Your task to perform on an android device: Search for pizza restaurants on Maps Image 0: 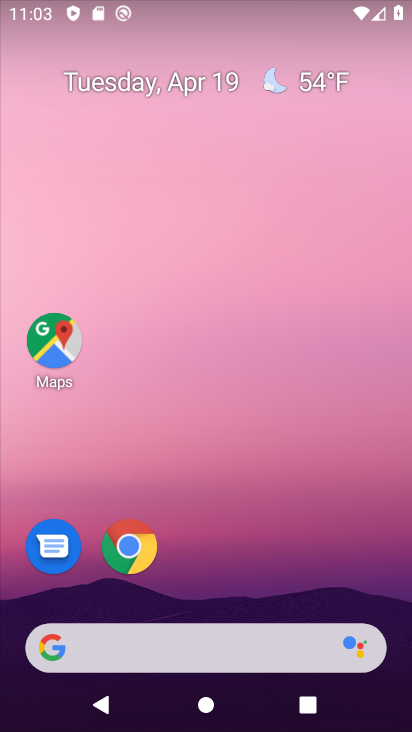
Step 0: click (53, 355)
Your task to perform on an android device: Search for pizza restaurants on Maps Image 1: 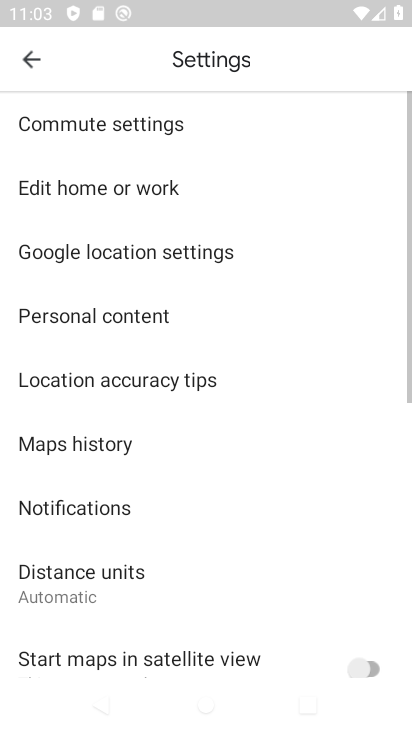
Step 1: press back button
Your task to perform on an android device: Search for pizza restaurants on Maps Image 2: 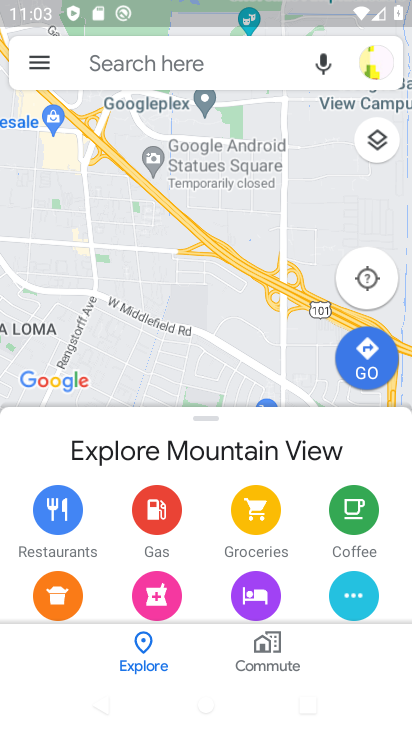
Step 2: click (234, 68)
Your task to perform on an android device: Search for pizza restaurants on Maps Image 3: 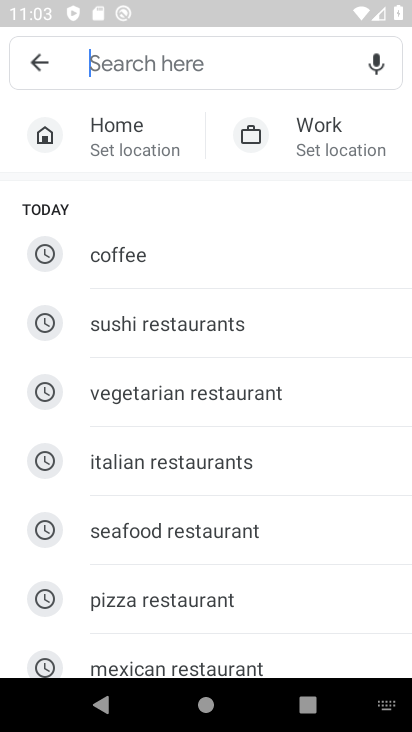
Step 3: click (268, 603)
Your task to perform on an android device: Search for pizza restaurants on Maps Image 4: 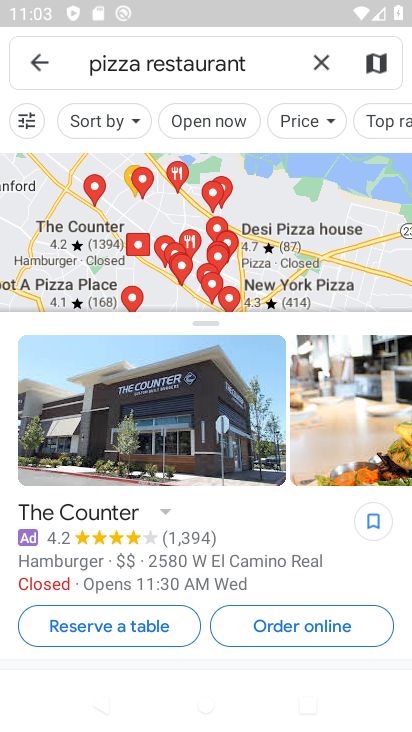
Step 4: task complete